Your task to perform on an android device: turn on showing notifications on the lock screen Image 0: 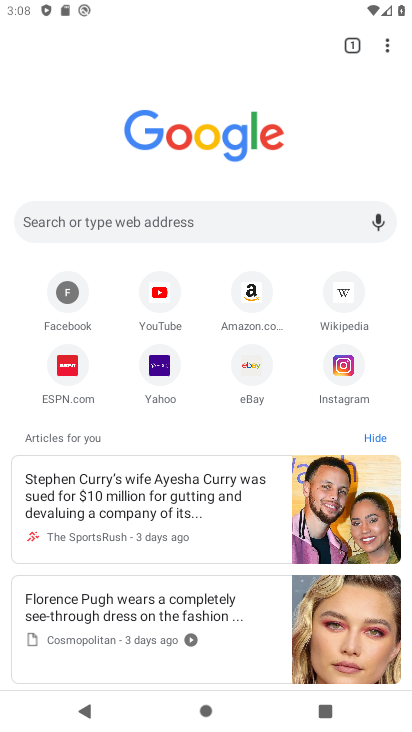
Step 0: press home button
Your task to perform on an android device: turn on showing notifications on the lock screen Image 1: 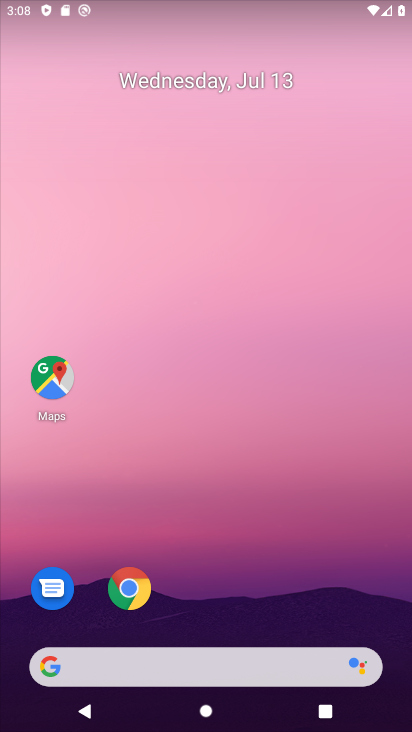
Step 1: drag from (241, 531) to (220, 155)
Your task to perform on an android device: turn on showing notifications on the lock screen Image 2: 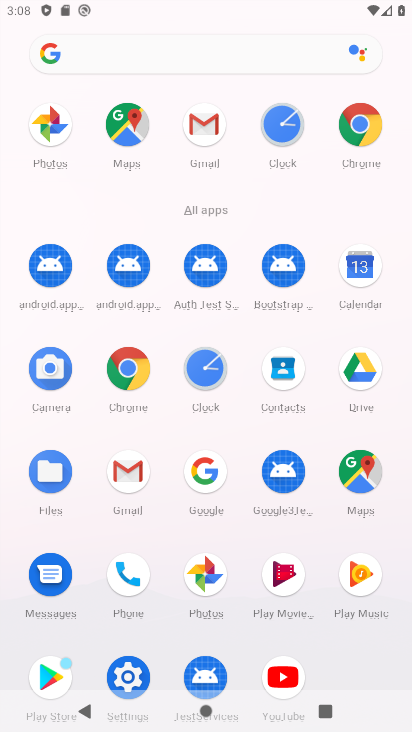
Step 2: click (126, 670)
Your task to perform on an android device: turn on showing notifications on the lock screen Image 3: 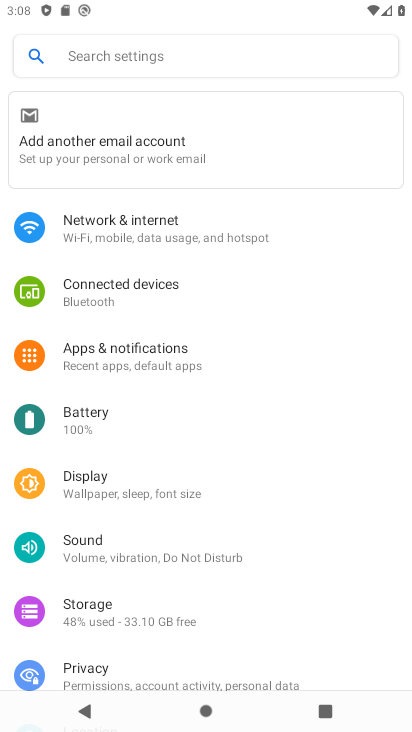
Step 3: click (175, 349)
Your task to perform on an android device: turn on showing notifications on the lock screen Image 4: 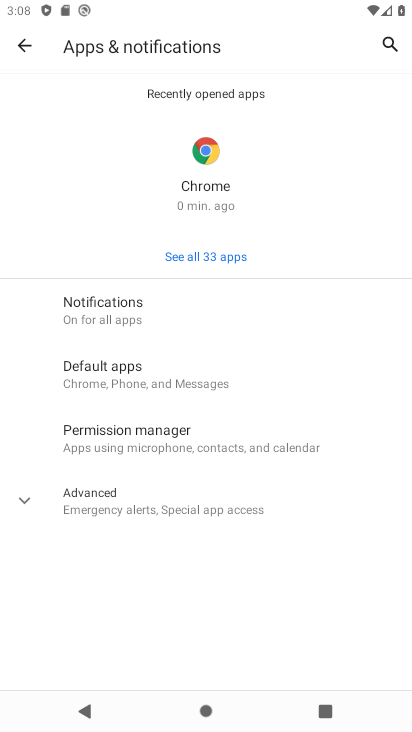
Step 4: click (74, 511)
Your task to perform on an android device: turn on showing notifications on the lock screen Image 5: 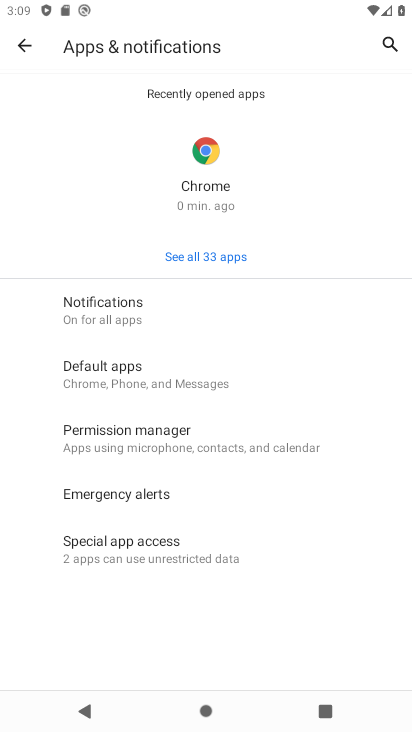
Step 5: click (102, 320)
Your task to perform on an android device: turn on showing notifications on the lock screen Image 6: 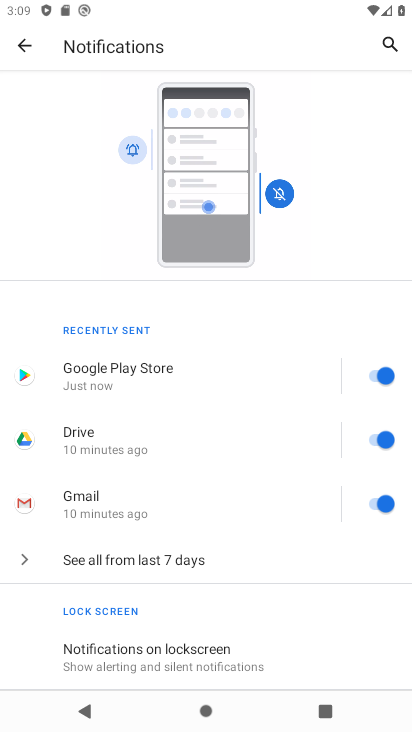
Step 6: click (116, 655)
Your task to perform on an android device: turn on showing notifications on the lock screen Image 7: 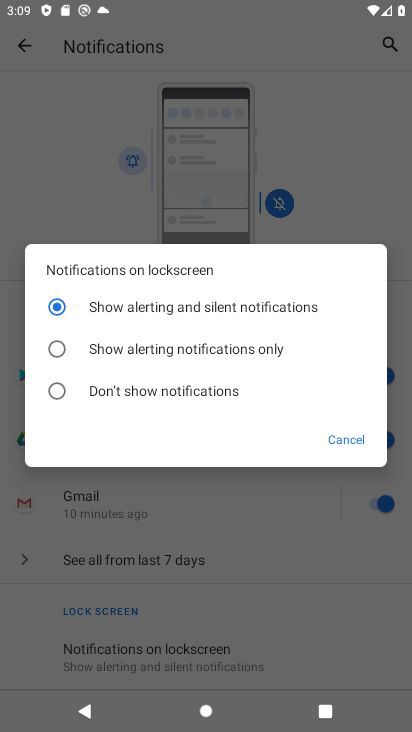
Step 7: click (52, 345)
Your task to perform on an android device: turn on showing notifications on the lock screen Image 8: 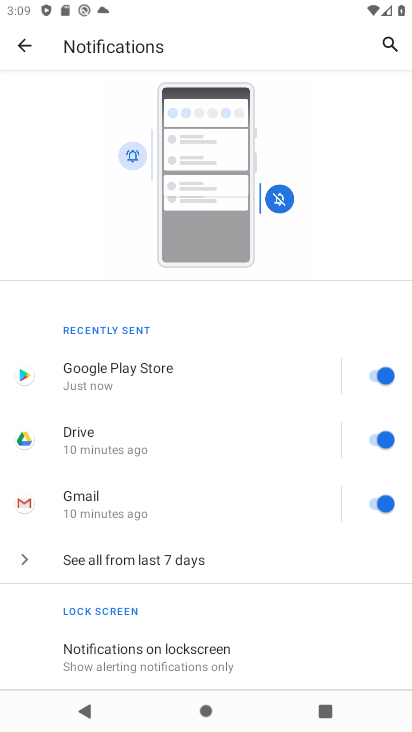
Step 8: click (161, 660)
Your task to perform on an android device: turn on showing notifications on the lock screen Image 9: 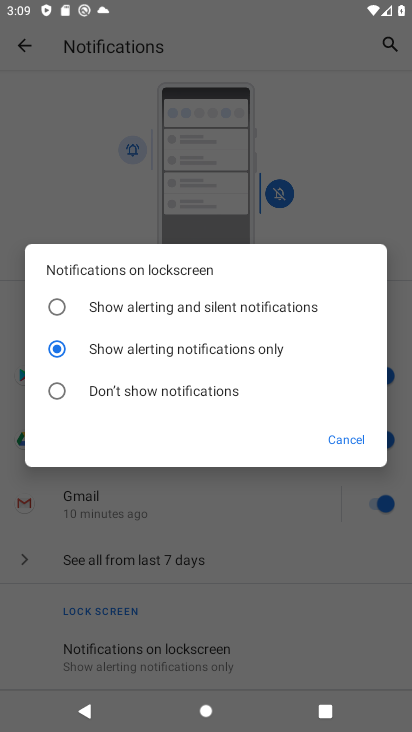
Step 9: task complete